Your task to perform on an android device: What is the news today? Image 0: 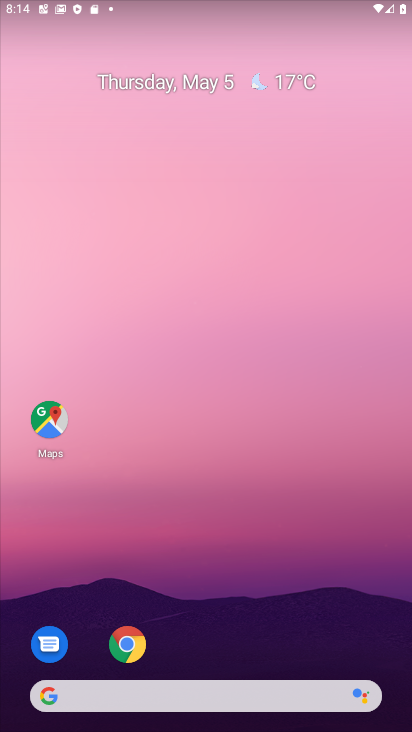
Step 0: drag from (222, 631) to (172, 249)
Your task to perform on an android device: What is the news today? Image 1: 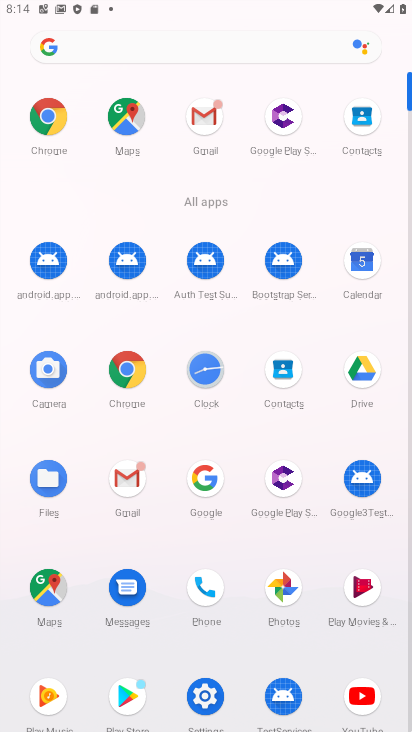
Step 1: click (46, 128)
Your task to perform on an android device: What is the news today? Image 2: 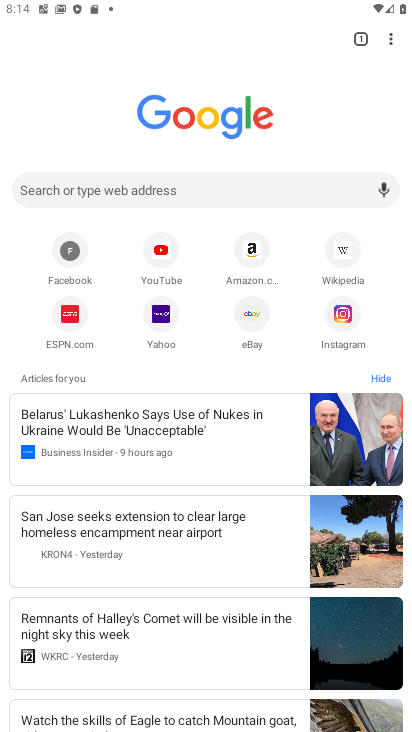
Step 2: click (157, 194)
Your task to perform on an android device: What is the news today? Image 3: 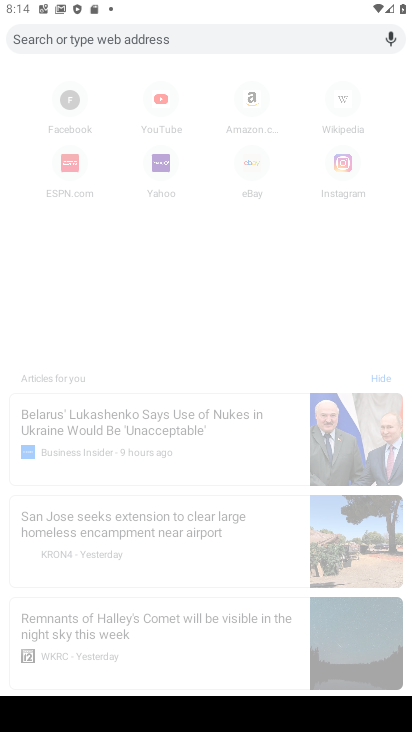
Step 3: drag from (100, 723) to (393, 561)
Your task to perform on an android device: What is the news today? Image 4: 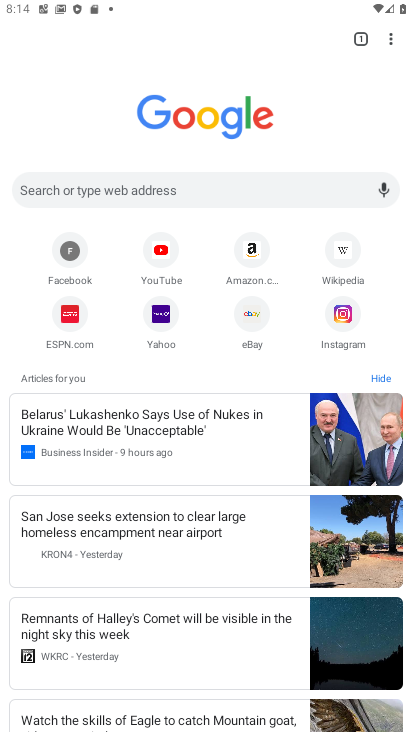
Step 4: type "What is the news today?"
Your task to perform on an android device: What is the news today? Image 5: 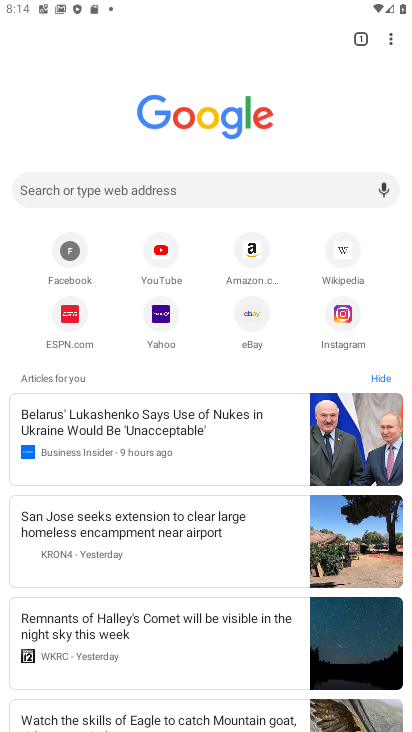
Step 5: click (177, 186)
Your task to perform on an android device: What is the news today? Image 6: 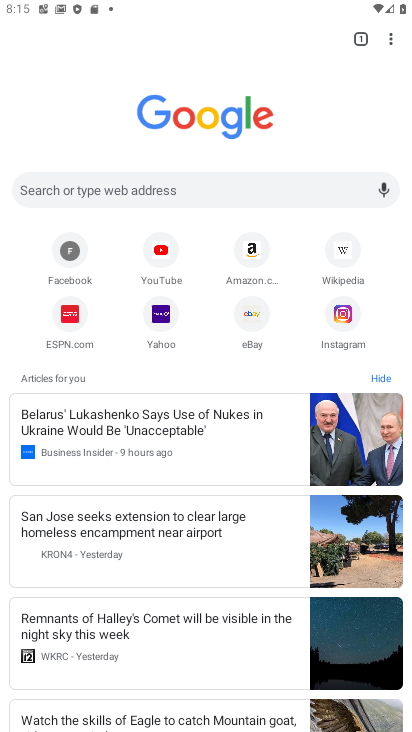
Step 6: click (52, 197)
Your task to perform on an android device: What is the news today? Image 7: 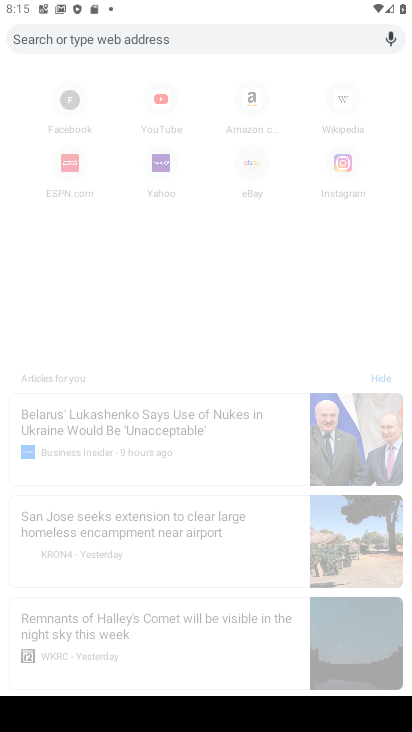
Step 7: type "What is the news today?"
Your task to perform on an android device: What is the news today? Image 8: 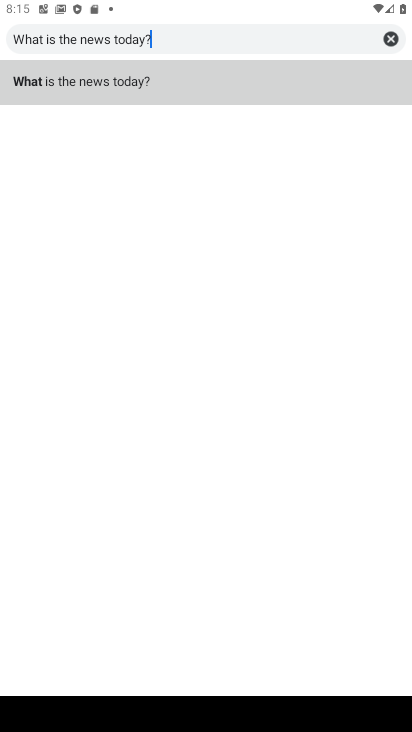
Step 8: click (53, 83)
Your task to perform on an android device: What is the news today? Image 9: 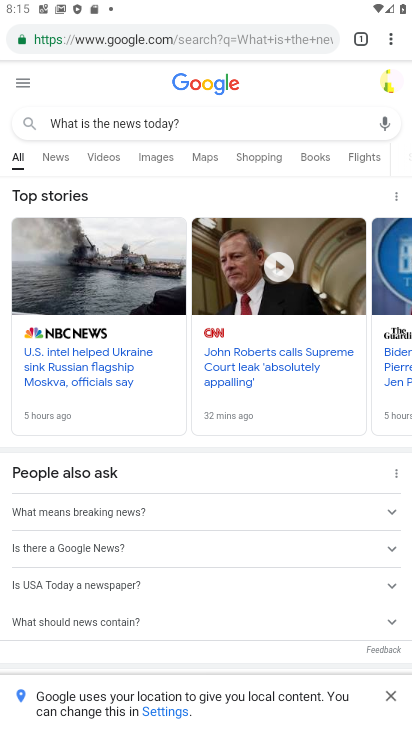
Step 9: task complete